Your task to perform on an android device: toggle sleep mode Image 0: 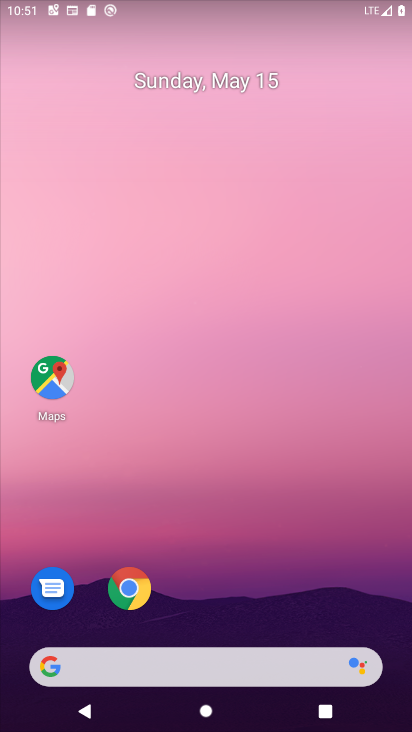
Step 0: drag from (292, 382) to (267, 66)
Your task to perform on an android device: toggle sleep mode Image 1: 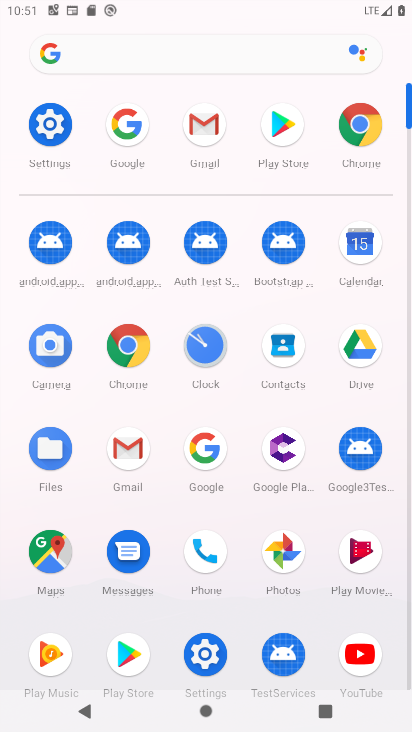
Step 1: click (48, 135)
Your task to perform on an android device: toggle sleep mode Image 2: 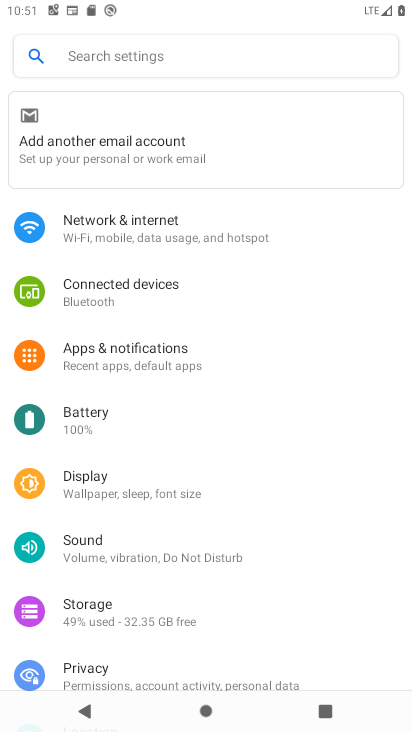
Step 2: click (112, 490)
Your task to perform on an android device: toggle sleep mode Image 3: 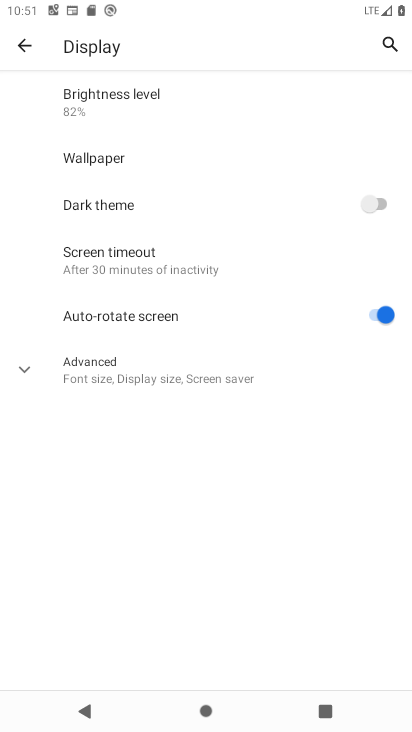
Step 3: click (157, 366)
Your task to perform on an android device: toggle sleep mode Image 4: 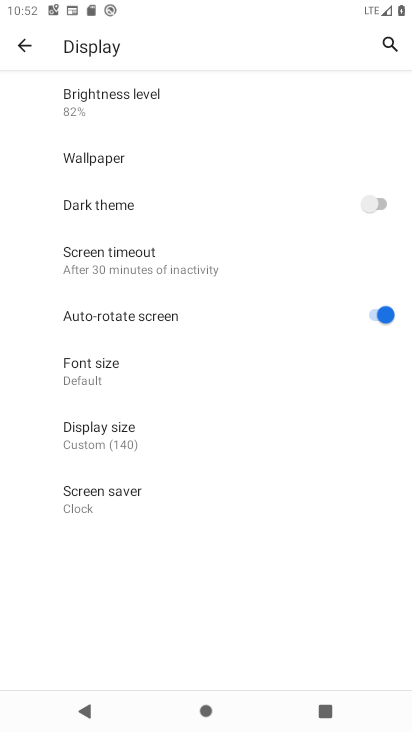
Step 4: task complete